Your task to perform on an android device: Show me popular videos on Youtube Image 0: 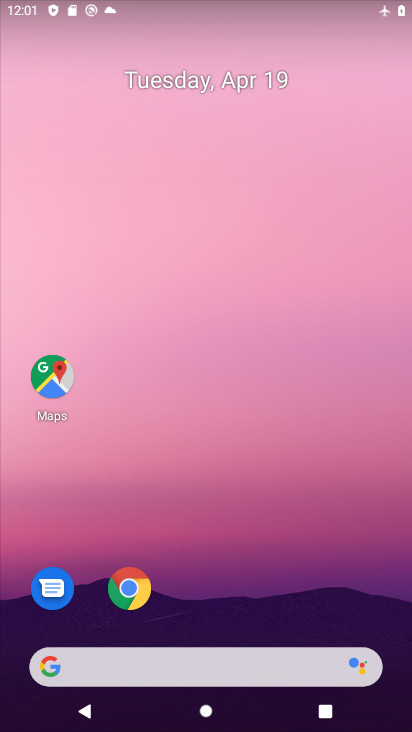
Step 0: drag from (371, 614) to (365, 66)
Your task to perform on an android device: Show me popular videos on Youtube Image 1: 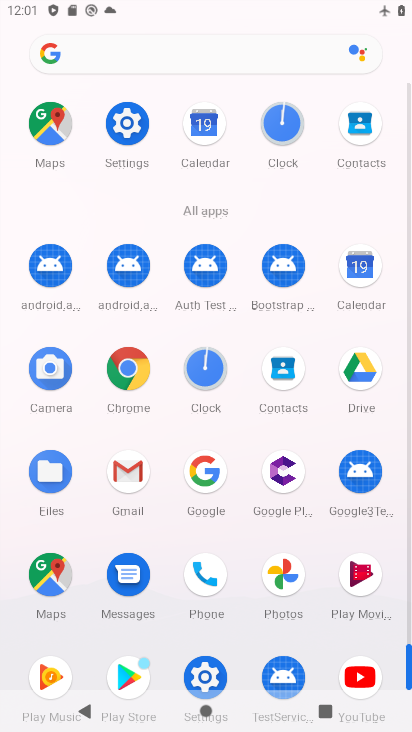
Step 1: drag from (310, 555) to (318, 309)
Your task to perform on an android device: Show me popular videos on Youtube Image 2: 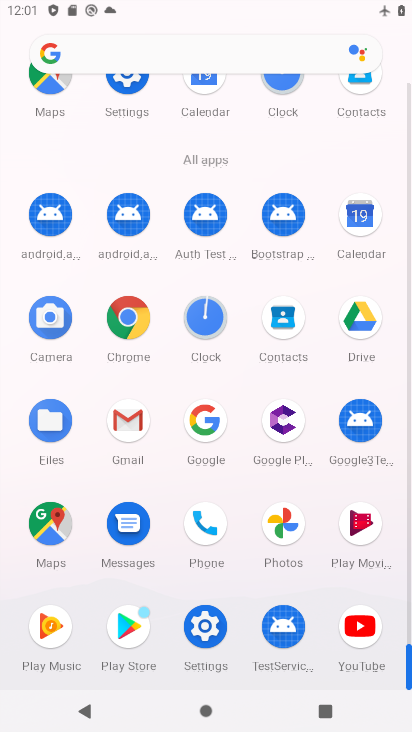
Step 2: click (350, 625)
Your task to perform on an android device: Show me popular videos on Youtube Image 3: 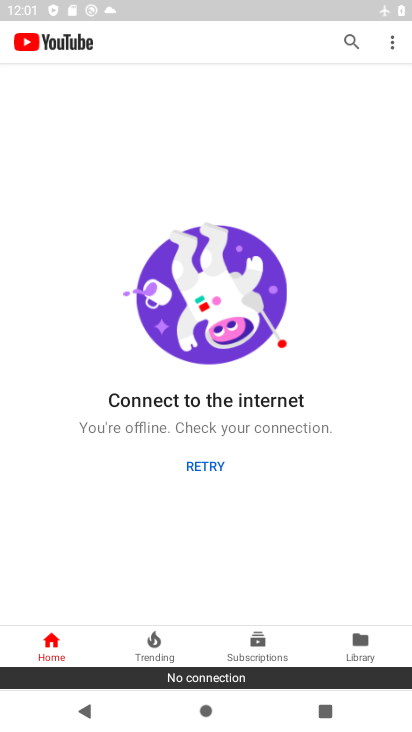
Step 3: task complete